Your task to perform on an android device: turn on wifi Image 0: 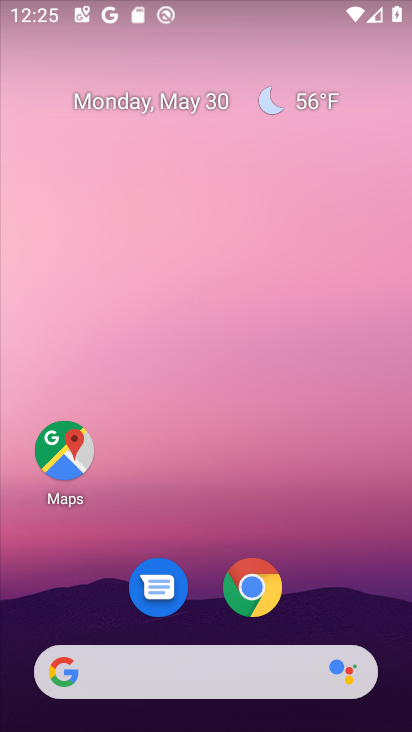
Step 0: drag from (335, 481) to (294, 40)
Your task to perform on an android device: turn on wifi Image 1: 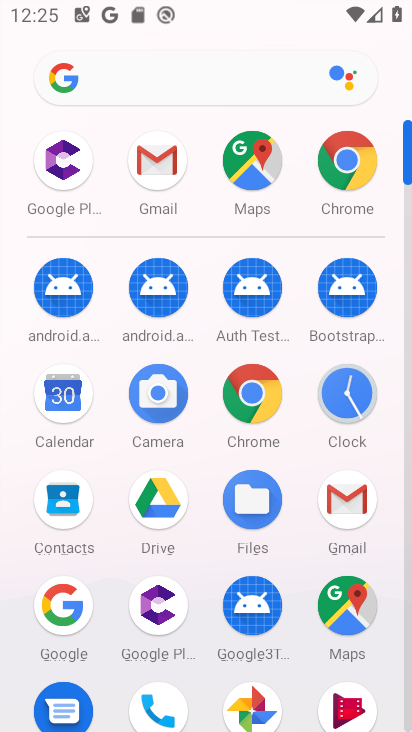
Step 1: click (408, 631)
Your task to perform on an android device: turn on wifi Image 2: 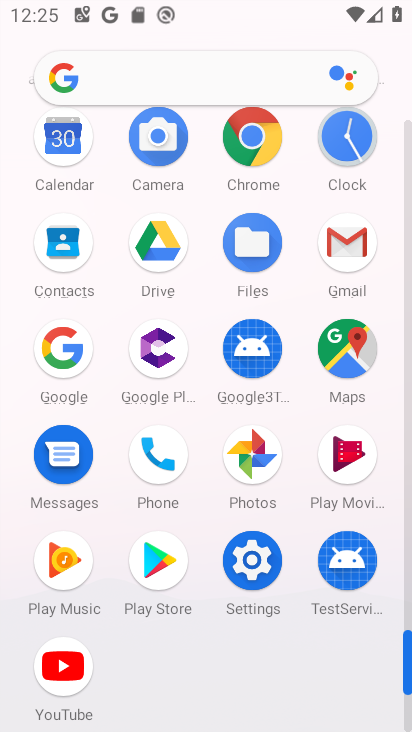
Step 2: click (255, 572)
Your task to perform on an android device: turn on wifi Image 3: 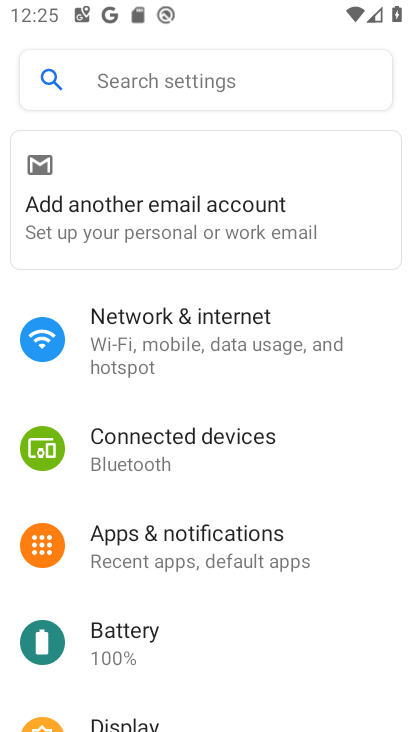
Step 3: click (257, 345)
Your task to perform on an android device: turn on wifi Image 4: 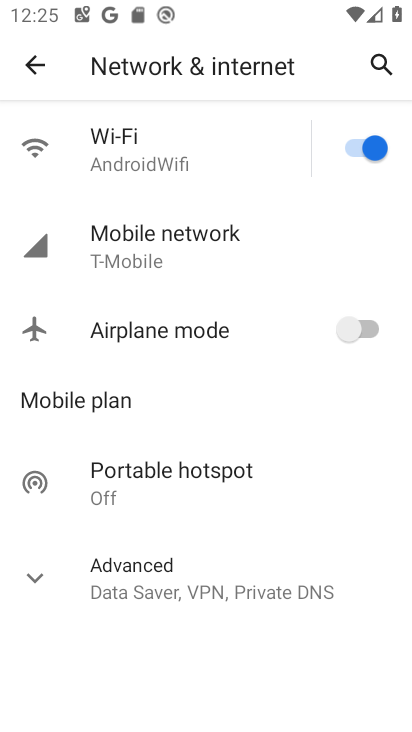
Step 4: task complete